Your task to perform on an android device: open app "Messenger Lite" (install if not already installed) Image 0: 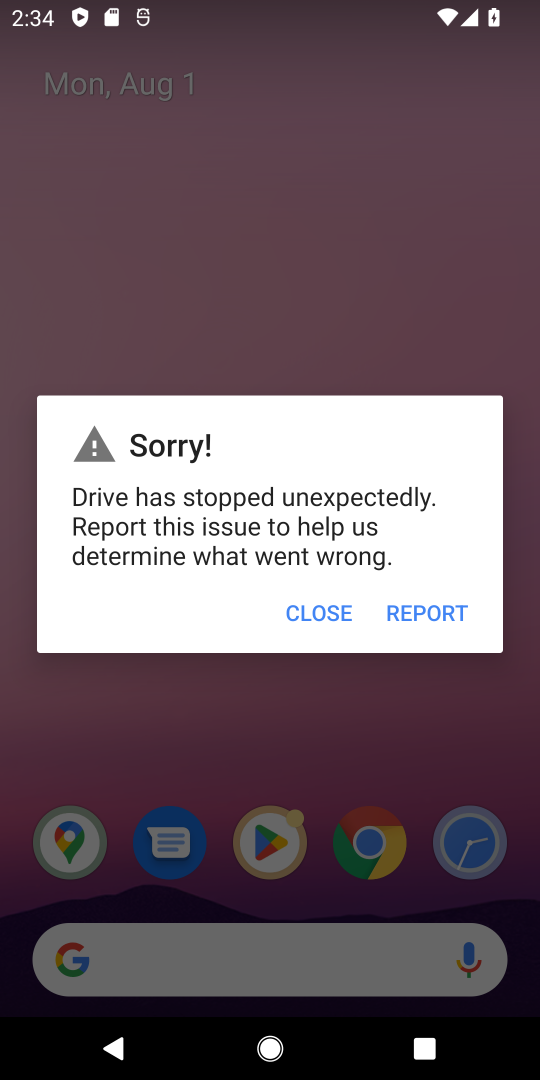
Step 0: click (316, 596)
Your task to perform on an android device: open app "Messenger Lite" (install if not already installed) Image 1: 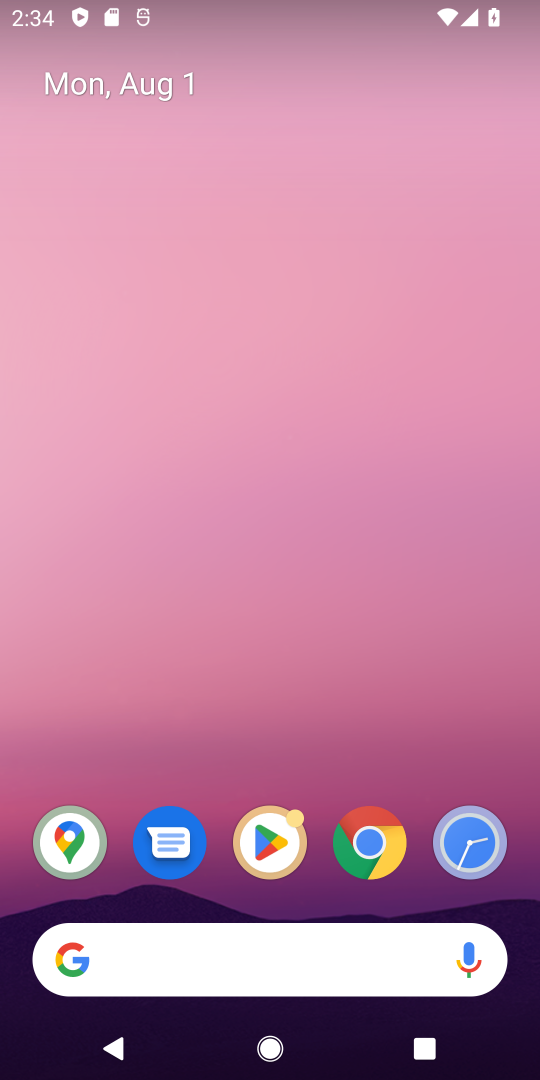
Step 1: click (268, 852)
Your task to perform on an android device: open app "Messenger Lite" (install if not already installed) Image 2: 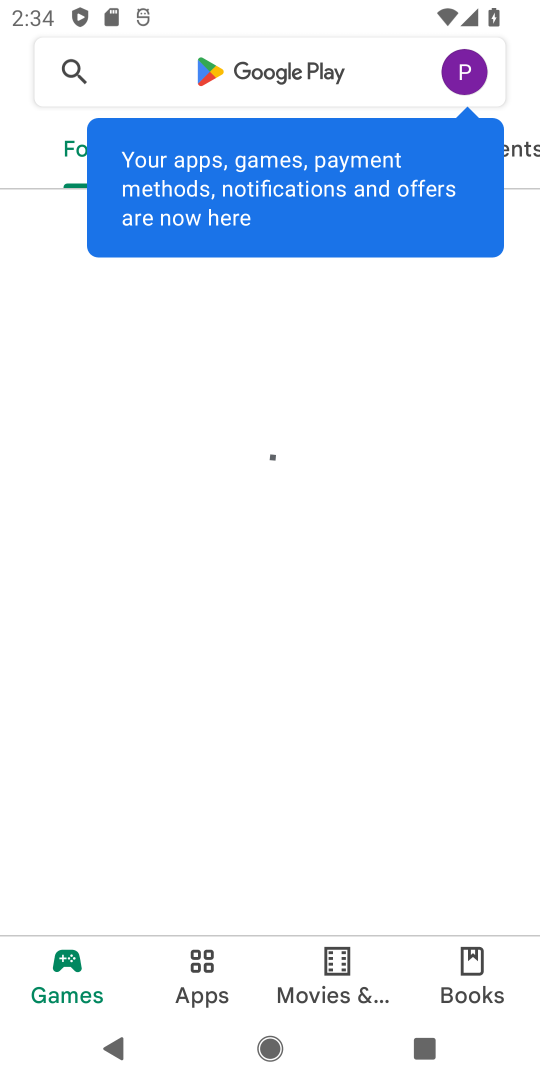
Step 2: click (276, 71)
Your task to perform on an android device: open app "Messenger Lite" (install if not already installed) Image 3: 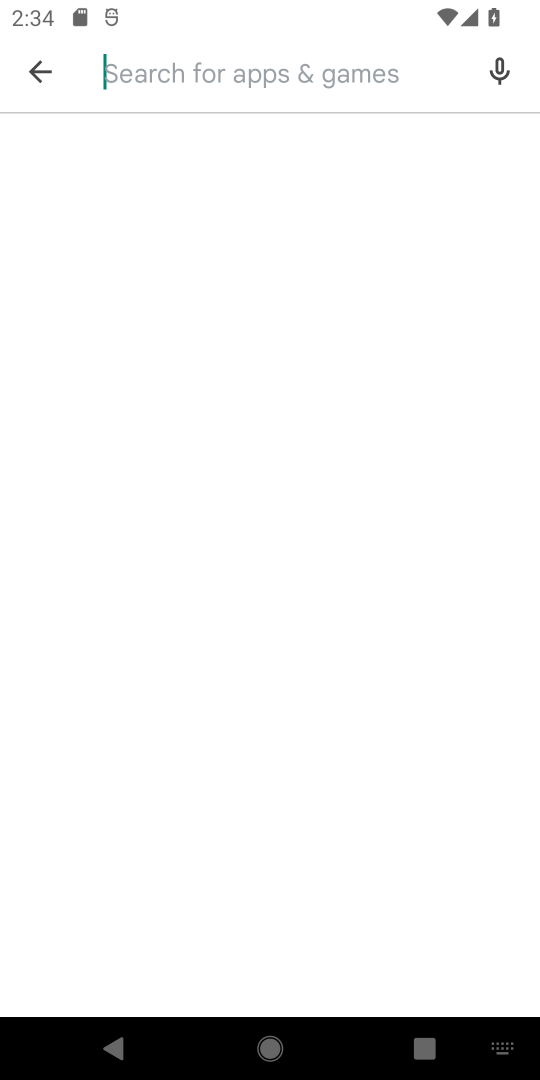
Step 3: type "Messenger lite"
Your task to perform on an android device: open app "Messenger Lite" (install if not already installed) Image 4: 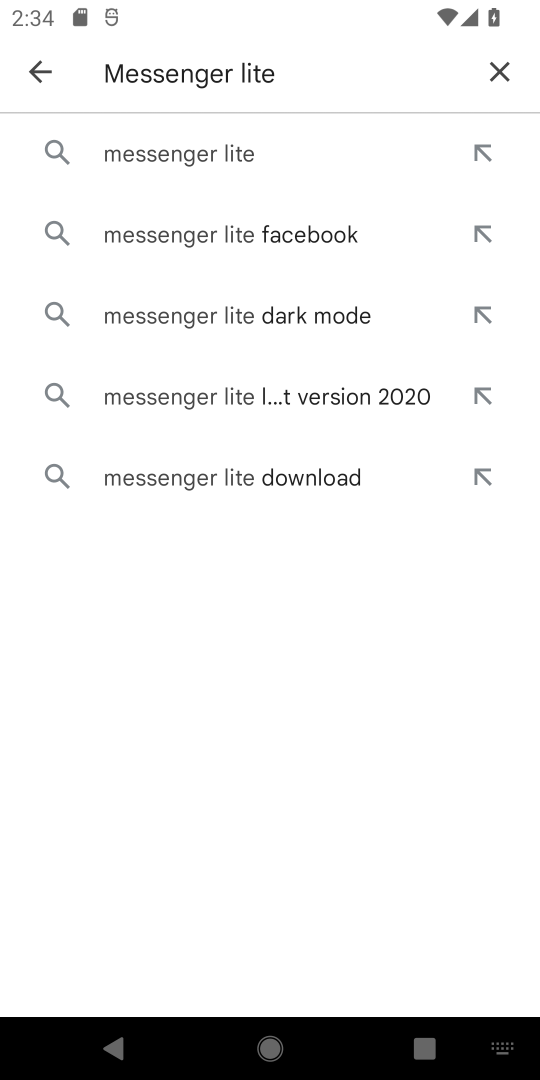
Step 4: click (224, 155)
Your task to perform on an android device: open app "Messenger Lite" (install if not already installed) Image 5: 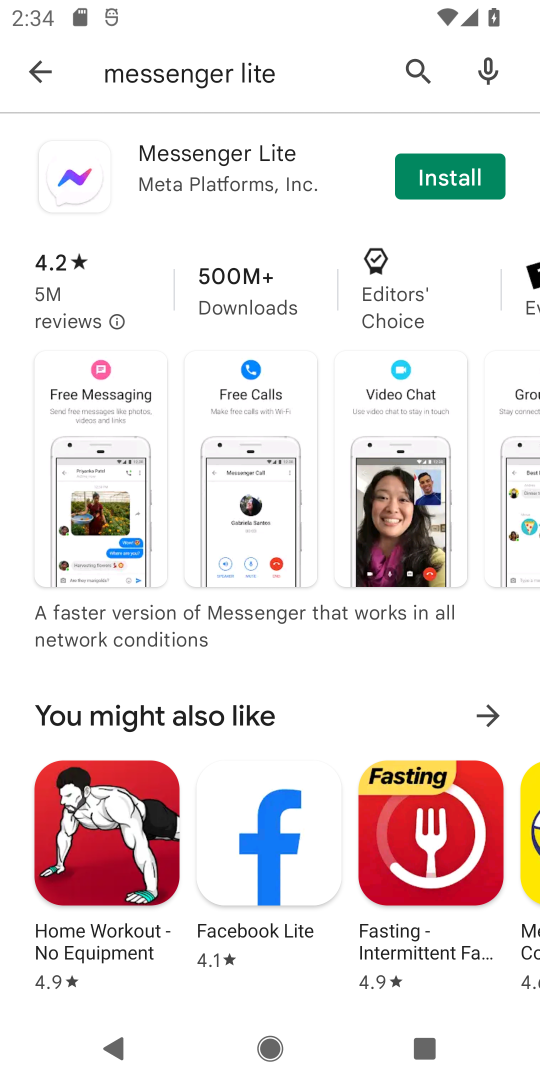
Step 5: click (452, 184)
Your task to perform on an android device: open app "Messenger Lite" (install if not already installed) Image 6: 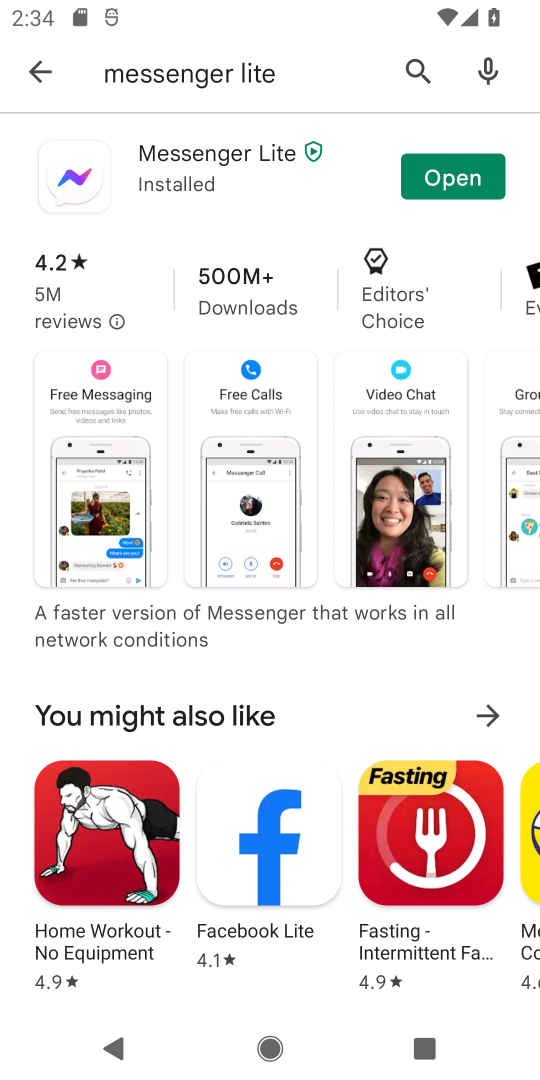
Step 6: click (440, 159)
Your task to perform on an android device: open app "Messenger Lite" (install if not already installed) Image 7: 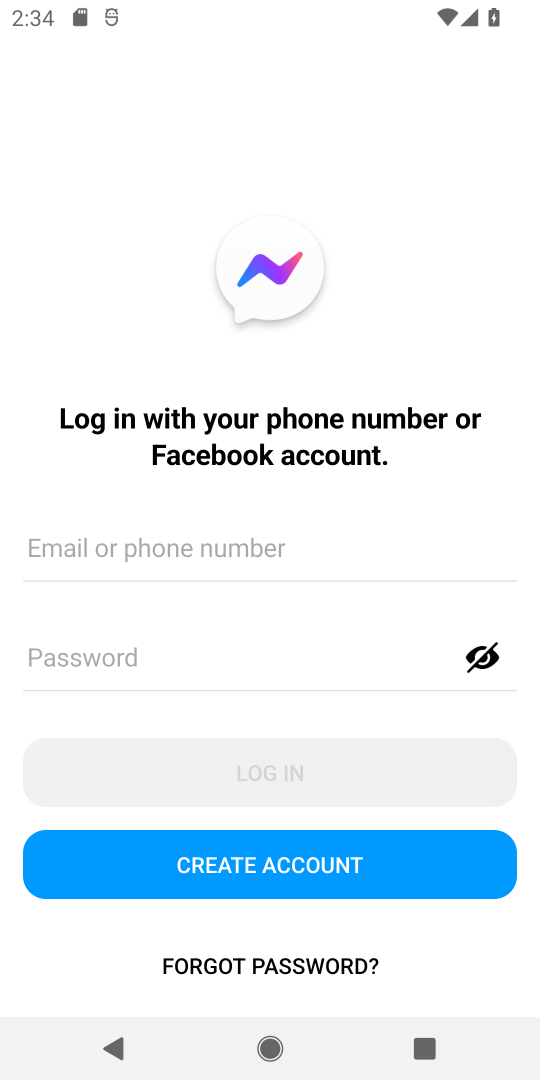
Step 7: task complete